Your task to perform on an android device: turn off priority inbox in the gmail app Image 0: 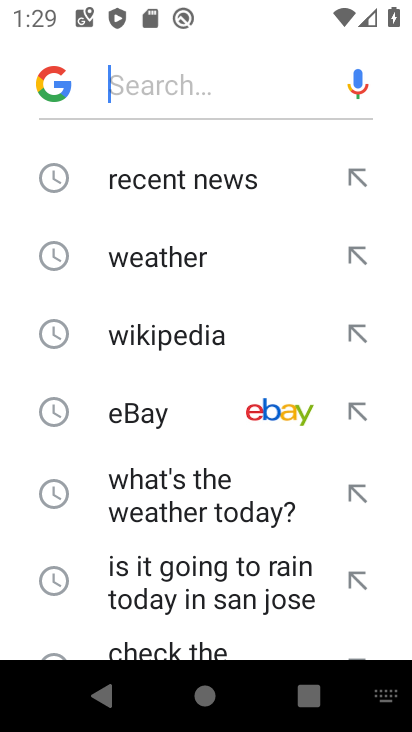
Step 0: press back button
Your task to perform on an android device: turn off priority inbox in the gmail app Image 1: 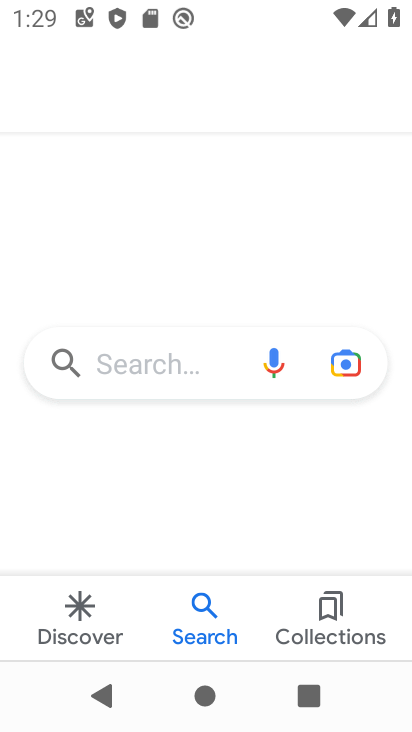
Step 1: press back button
Your task to perform on an android device: turn off priority inbox in the gmail app Image 2: 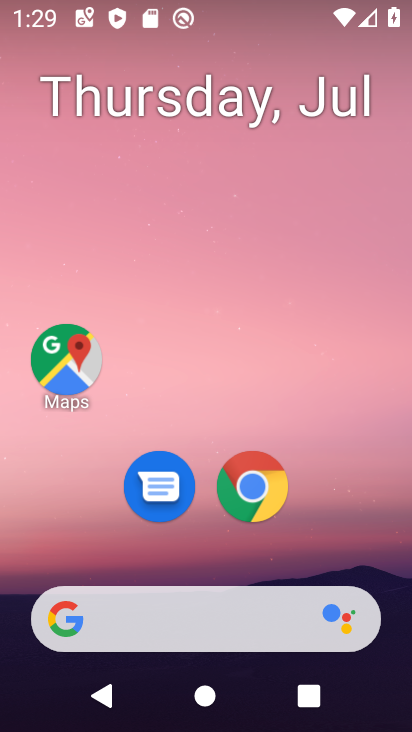
Step 2: drag from (78, 561) to (164, 60)
Your task to perform on an android device: turn off priority inbox in the gmail app Image 3: 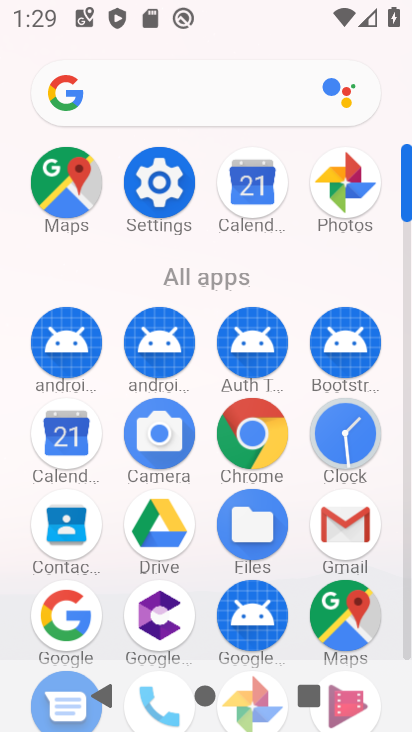
Step 3: click (334, 534)
Your task to perform on an android device: turn off priority inbox in the gmail app Image 4: 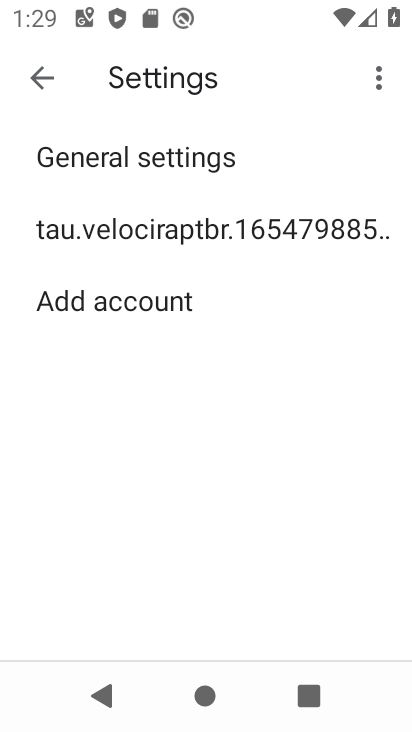
Step 4: click (152, 222)
Your task to perform on an android device: turn off priority inbox in the gmail app Image 5: 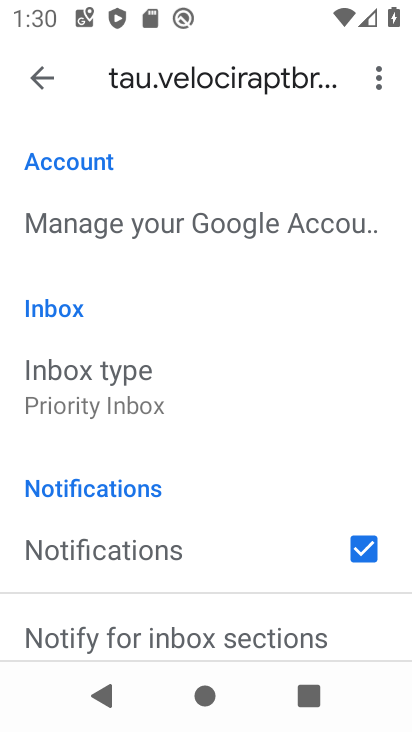
Step 5: click (135, 387)
Your task to perform on an android device: turn off priority inbox in the gmail app Image 6: 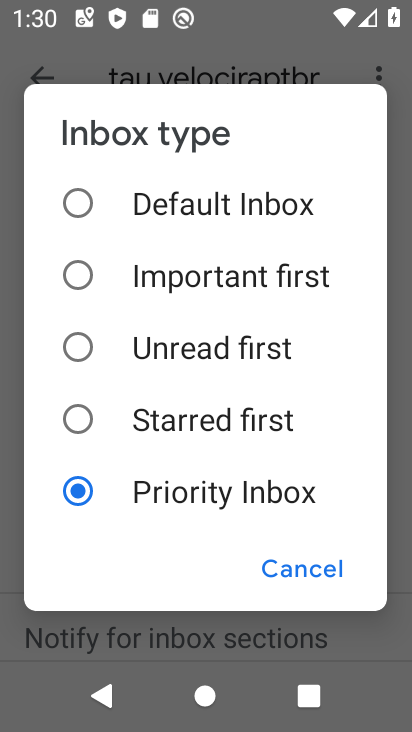
Step 6: click (79, 190)
Your task to perform on an android device: turn off priority inbox in the gmail app Image 7: 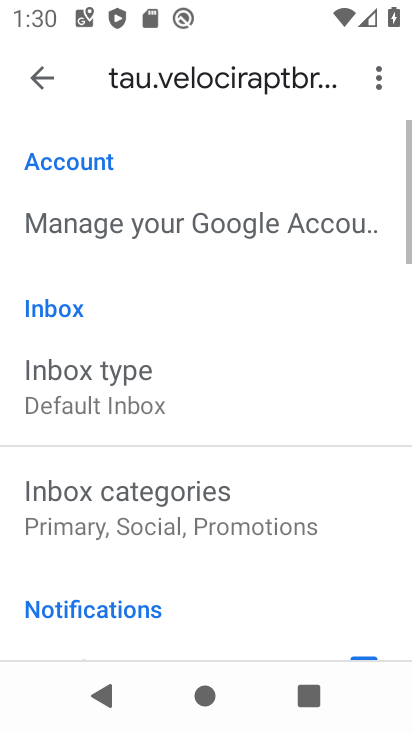
Step 7: task complete